Your task to perform on an android device: What is the news today? Image 0: 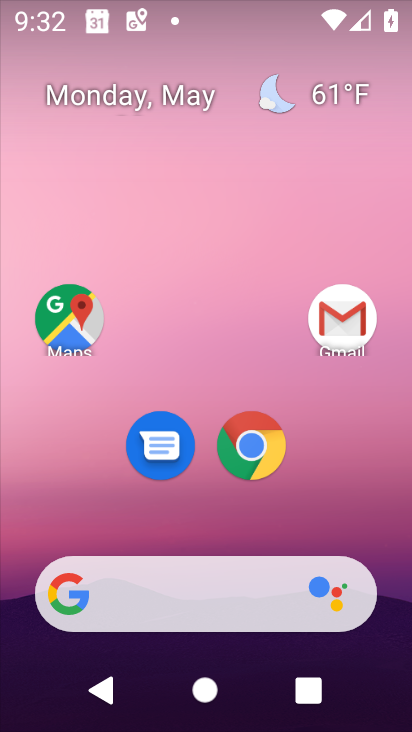
Step 0: drag from (29, 198) to (395, 258)
Your task to perform on an android device: What is the news today? Image 1: 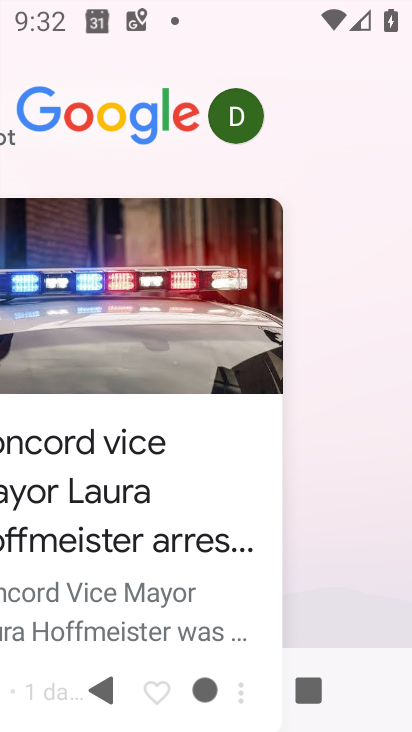
Step 1: task complete